Your task to perform on an android device: Open calendar and show me the first week of next month Image 0: 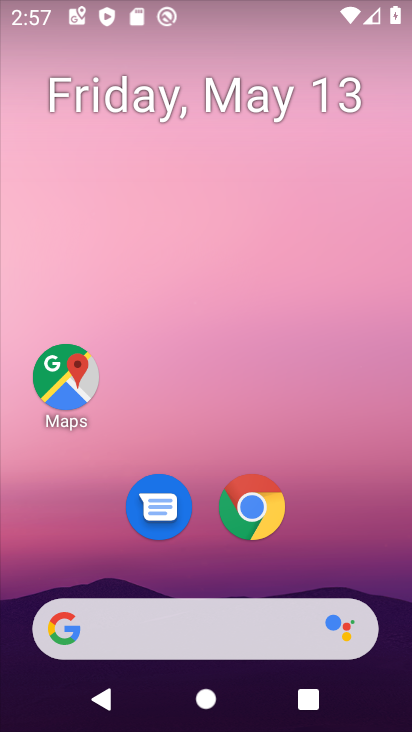
Step 0: press home button
Your task to perform on an android device: Open calendar and show me the first week of next month Image 1: 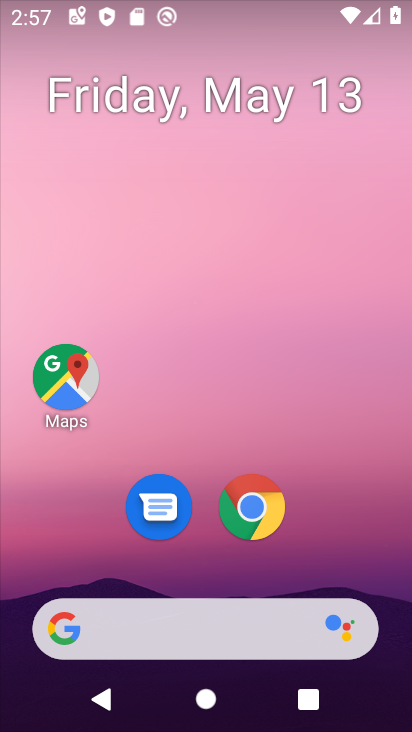
Step 1: drag from (302, 564) to (271, 66)
Your task to perform on an android device: Open calendar and show me the first week of next month Image 2: 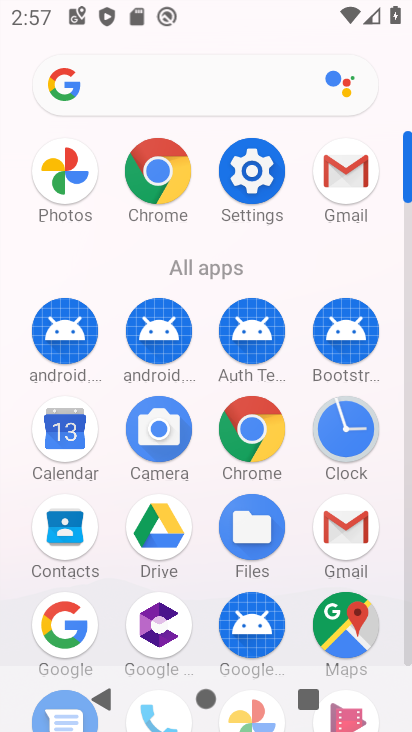
Step 2: click (51, 448)
Your task to perform on an android device: Open calendar and show me the first week of next month Image 3: 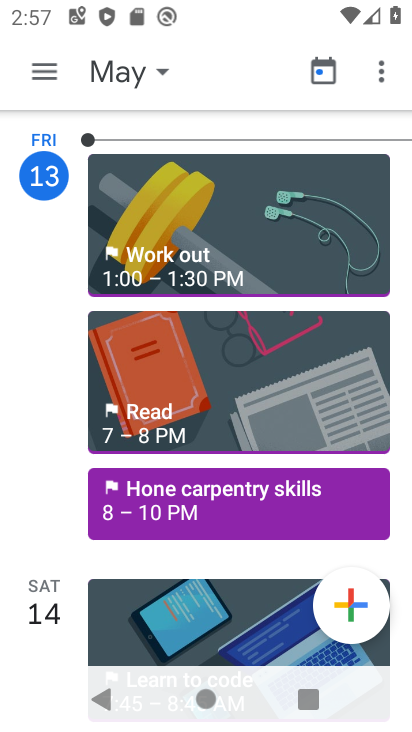
Step 3: click (40, 66)
Your task to perform on an android device: Open calendar and show me the first week of next month Image 4: 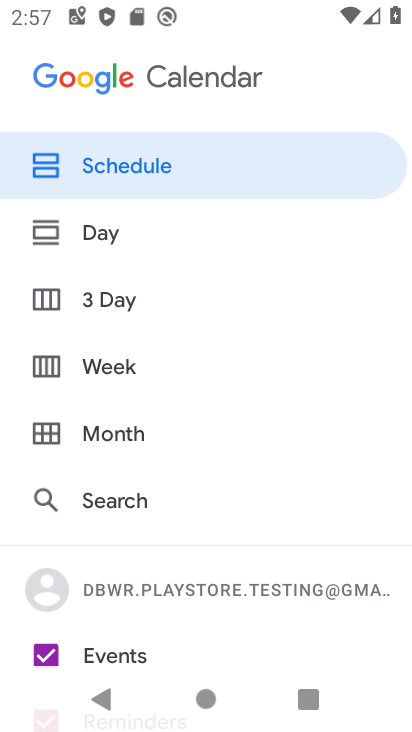
Step 4: click (100, 369)
Your task to perform on an android device: Open calendar and show me the first week of next month Image 5: 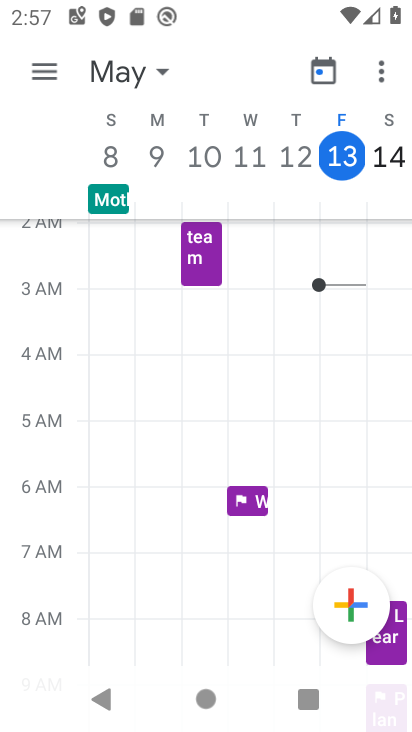
Step 5: click (114, 65)
Your task to perform on an android device: Open calendar and show me the first week of next month Image 6: 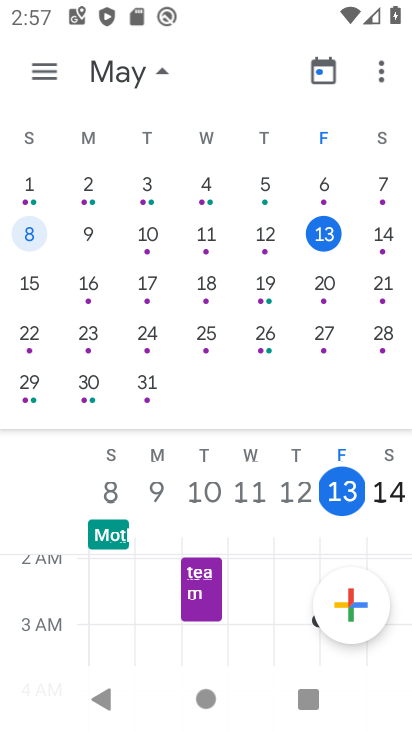
Step 6: drag from (262, 282) to (0, 203)
Your task to perform on an android device: Open calendar and show me the first week of next month Image 7: 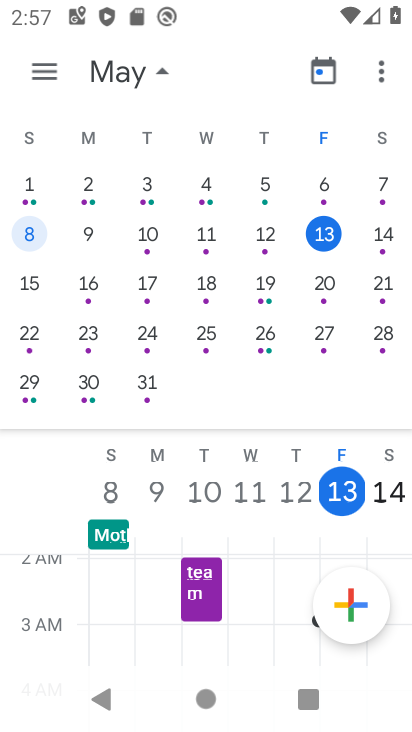
Step 7: drag from (373, 287) to (5, 186)
Your task to perform on an android device: Open calendar and show me the first week of next month Image 8: 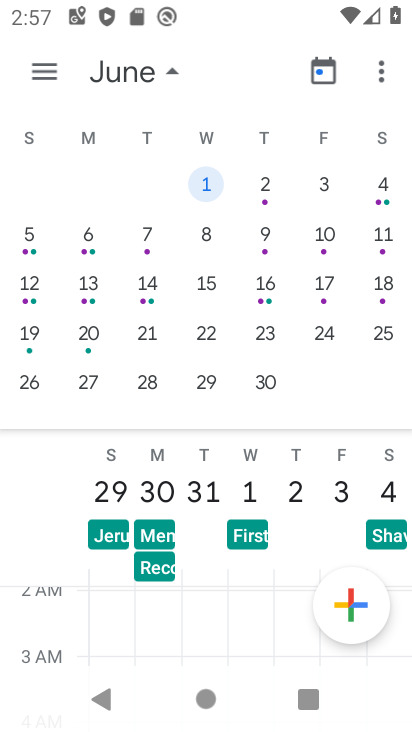
Step 8: click (257, 183)
Your task to perform on an android device: Open calendar and show me the first week of next month Image 9: 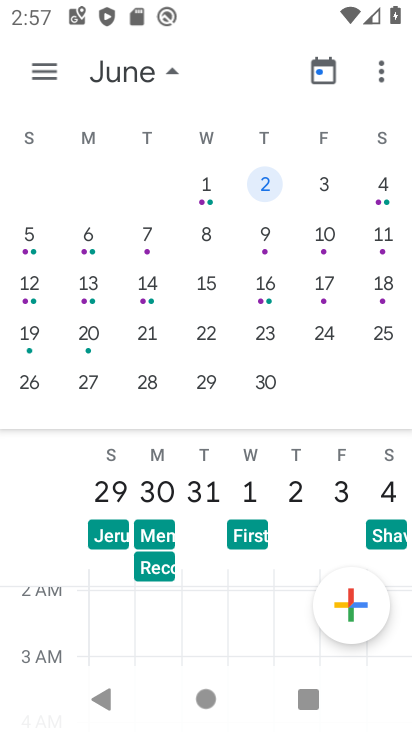
Step 9: task complete